Your task to perform on an android device: star an email in the gmail app Image 0: 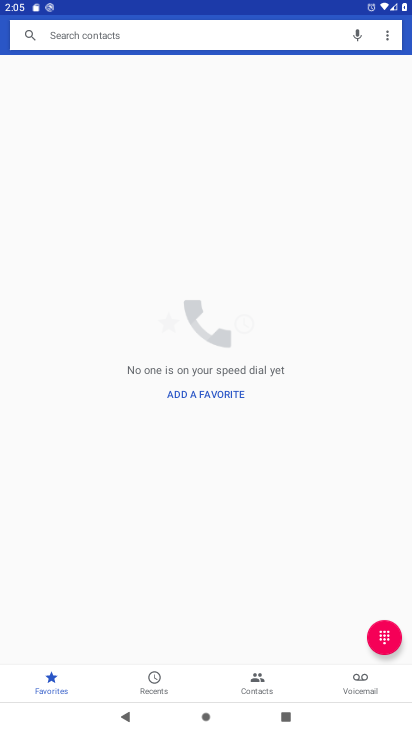
Step 0: press home button
Your task to perform on an android device: star an email in the gmail app Image 1: 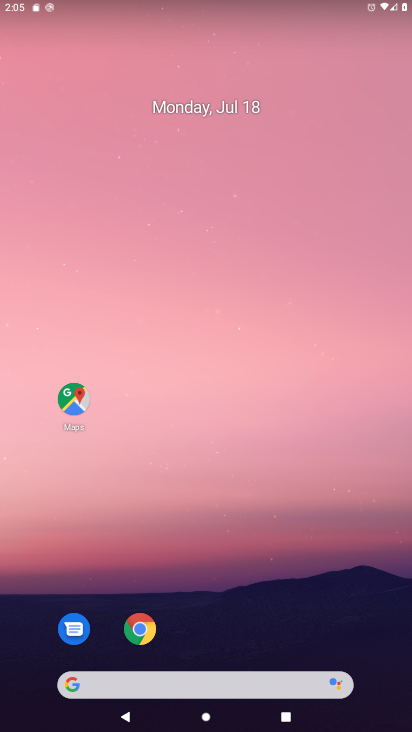
Step 1: drag from (190, 619) to (190, 131)
Your task to perform on an android device: star an email in the gmail app Image 2: 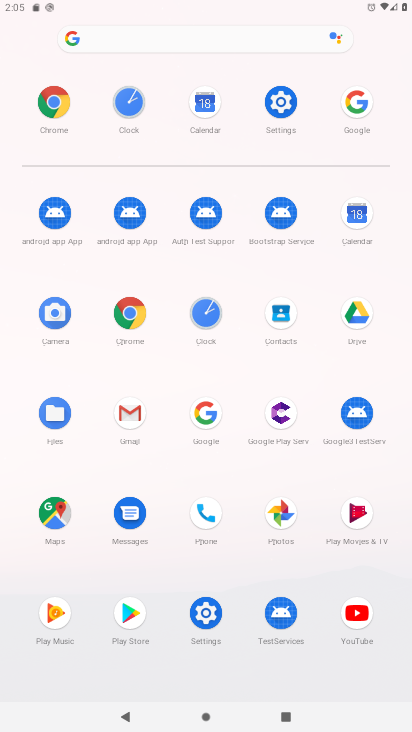
Step 2: click (133, 418)
Your task to perform on an android device: star an email in the gmail app Image 3: 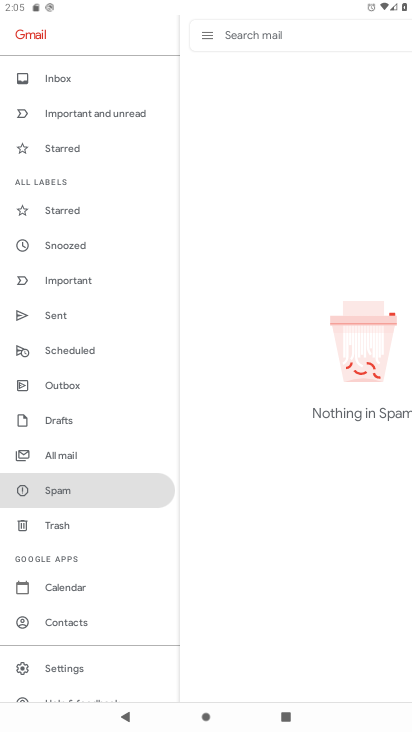
Step 3: click (57, 455)
Your task to perform on an android device: star an email in the gmail app Image 4: 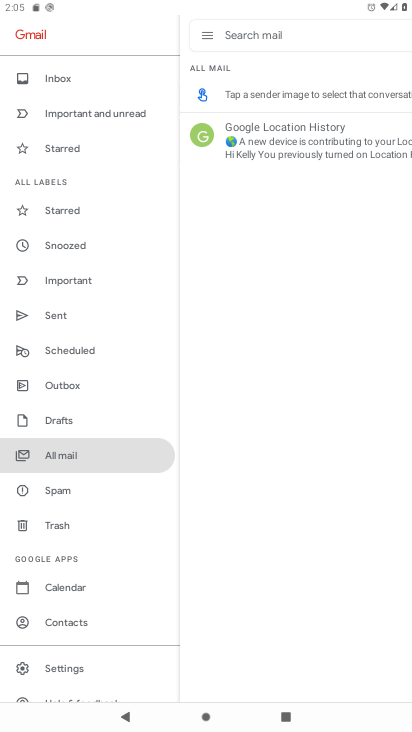
Step 4: click (319, 154)
Your task to perform on an android device: star an email in the gmail app Image 5: 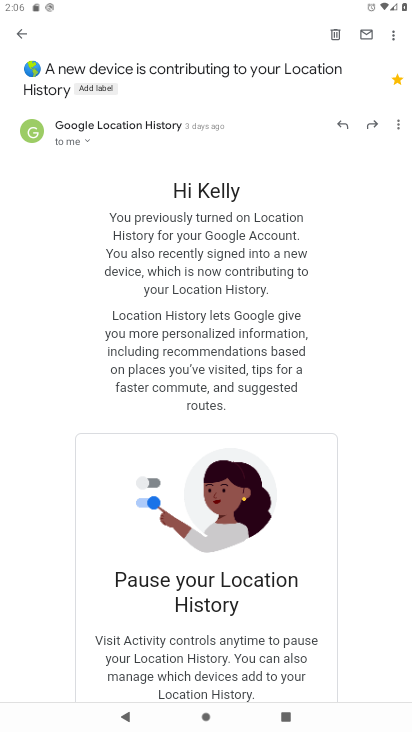
Step 5: task complete